Your task to perform on an android device: Go to Google maps Image 0: 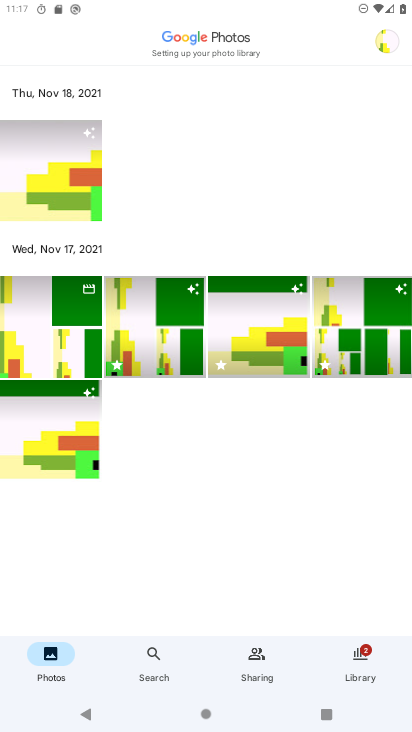
Step 0: press home button
Your task to perform on an android device: Go to Google maps Image 1: 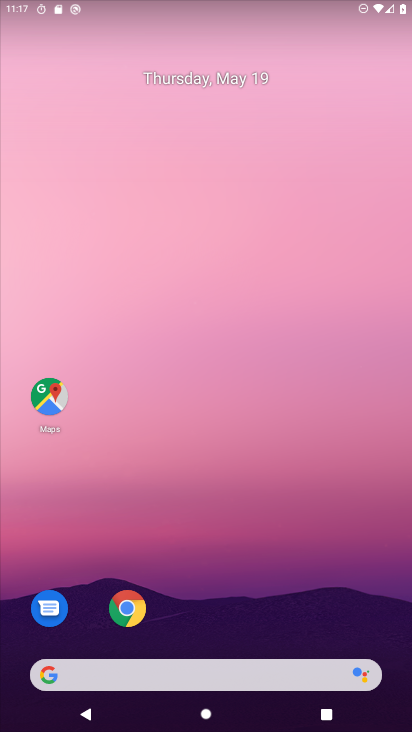
Step 1: drag from (402, 672) to (357, 223)
Your task to perform on an android device: Go to Google maps Image 2: 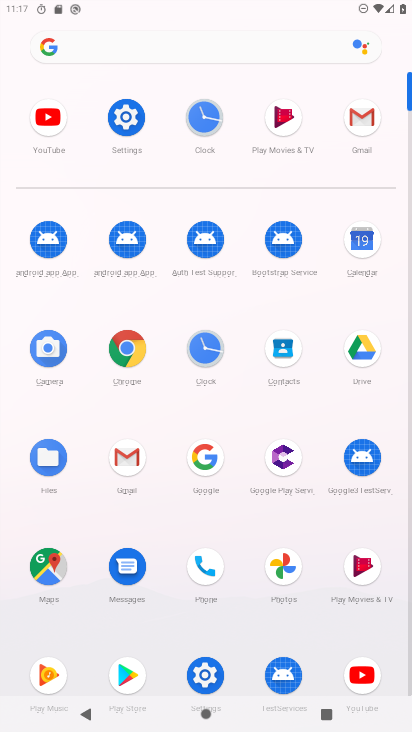
Step 2: click (204, 464)
Your task to perform on an android device: Go to Google maps Image 3: 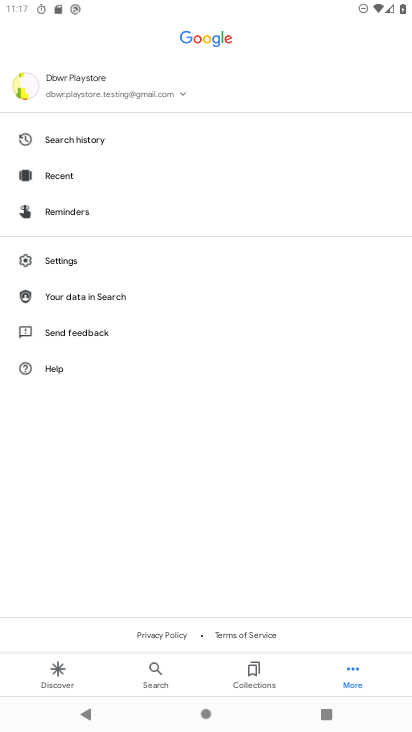
Step 3: press home button
Your task to perform on an android device: Go to Google maps Image 4: 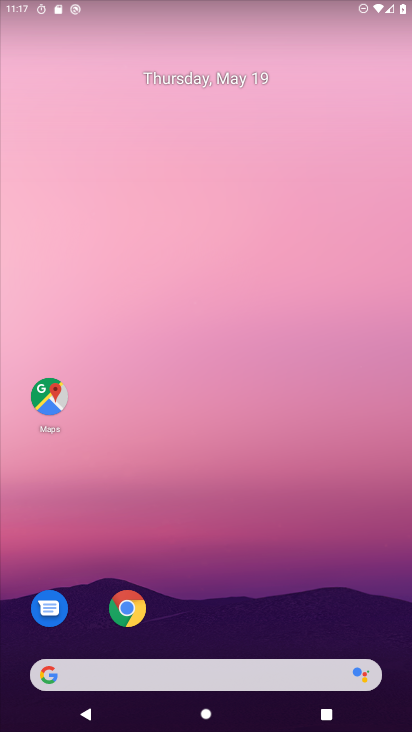
Step 4: click (44, 405)
Your task to perform on an android device: Go to Google maps Image 5: 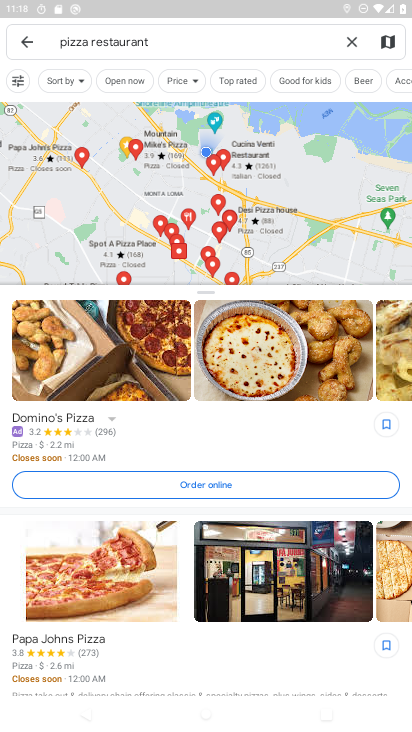
Step 5: task complete